Your task to perform on an android device: turn off improve location accuracy Image 0: 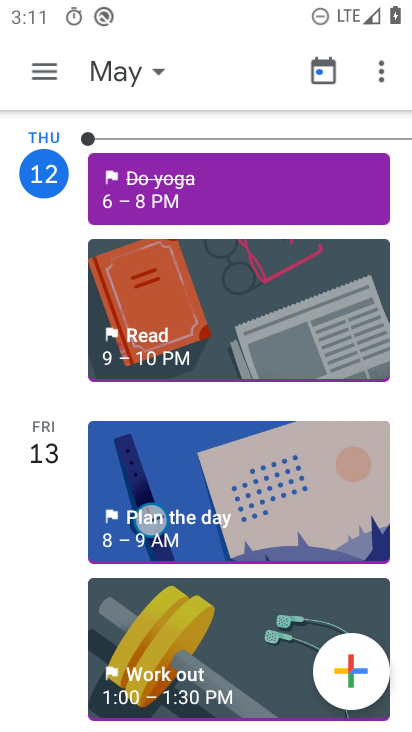
Step 0: press home button
Your task to perform on an android device: turn off improve location accuracy Image 1: 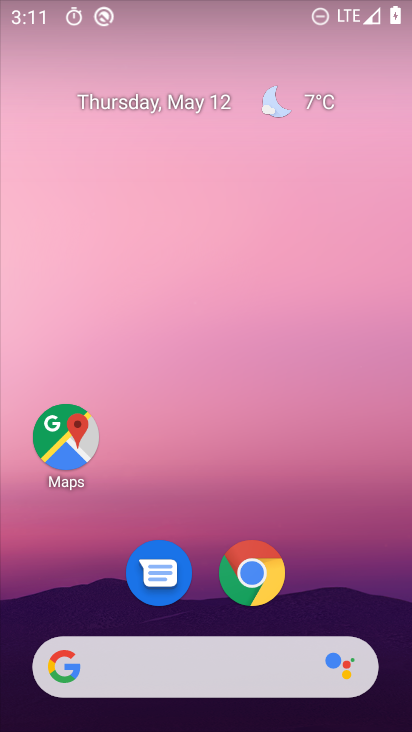
Step 1: drag from (309, 568) to (230, 206)
Your task to perform on an android device: turn off improve location accuracy Image 2: 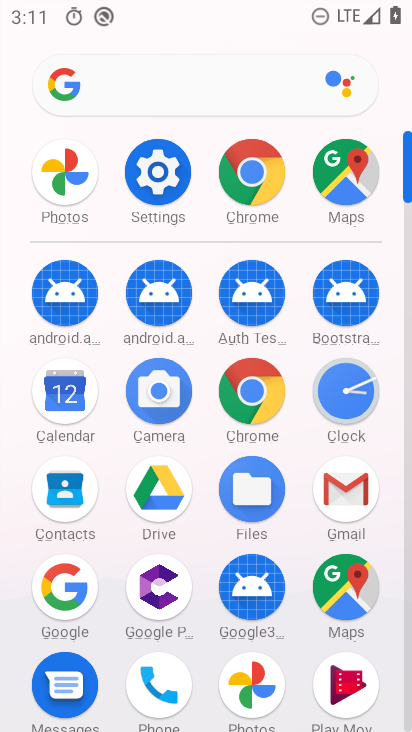
Step 2: click (146, 168)
Your task to perform on an android device: turn off improve location accuracy Image 3: 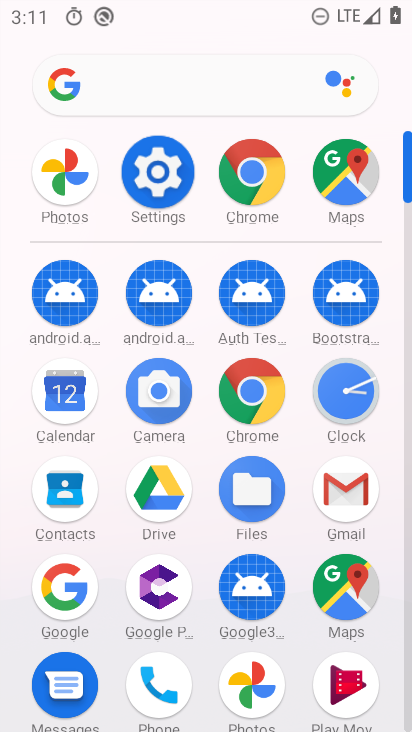
Step 3: click (147, 169)
Your task to perform on an android device: turn off improve location accuracy Image 4: 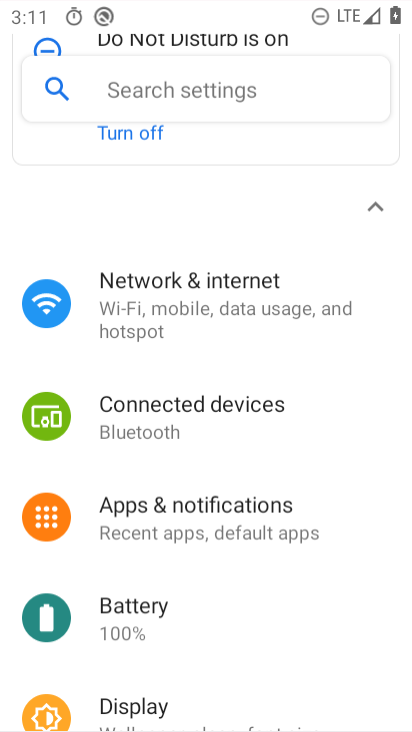
Step 4: click (141, 164)
Your task to perform on an android device: turn off improve location accuracy Image 5: 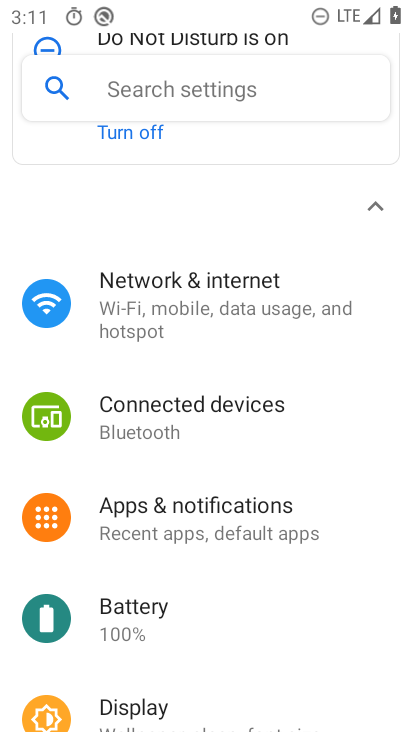
Step 5: drag from (219, 577) to (199, 313)
Your task to perform on an android device: turn off improve location accuracy Image 6: 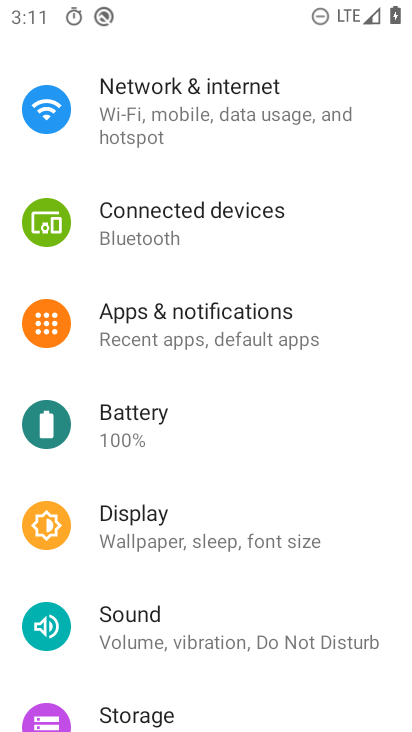
Step 6: drag from (259, 414) to (266, 213)
Your task to perform on an android device: turn off improve location accuracy Image 7: 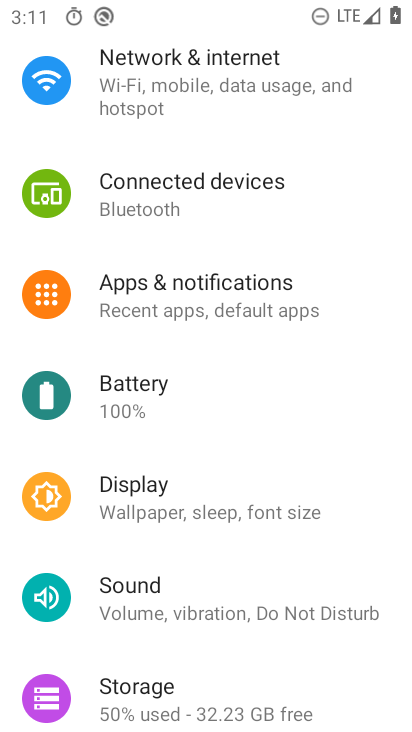
Step 7: drag from (221, 567) to (148, 204)
Your task to perform on an android device: turn off improve location accuracy Image 8: 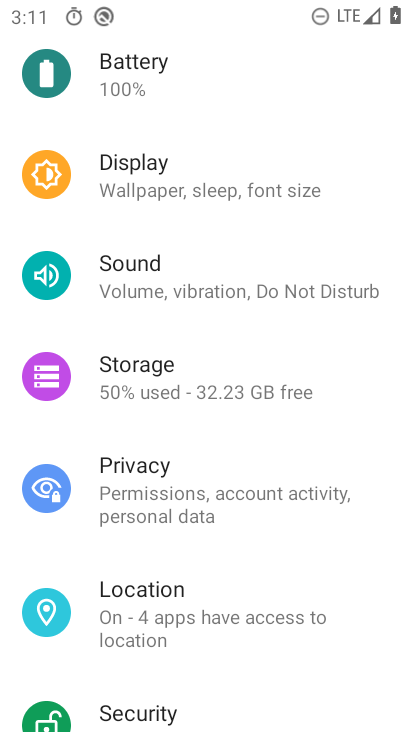
Step 8: drag from (259, 507) to (161, 127)
Your task to perform on an android device: turn off improve location accuracy Image 9: 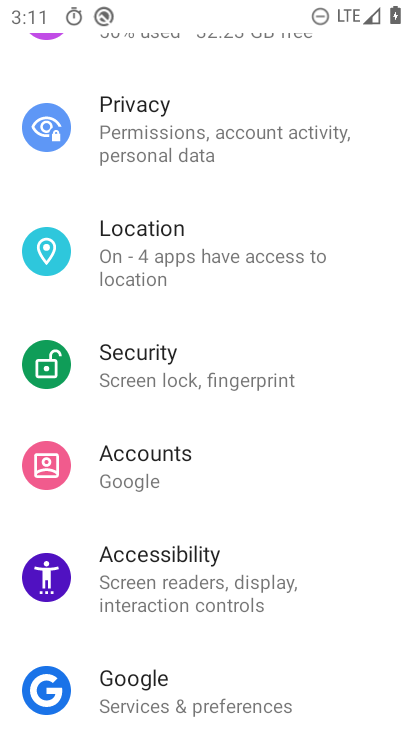
Step 9: drag from (254, 455) to (248, 187)
Your task to perform on an android device: turn off improve location accuracy Image 10: 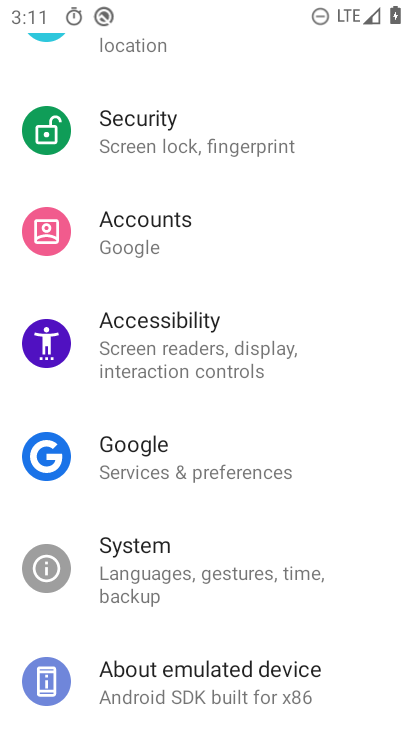
Step 10: drag from (252, 422) to (244, 501)
Your task to perform on an android device: turn off improve location accuracy Image 11: 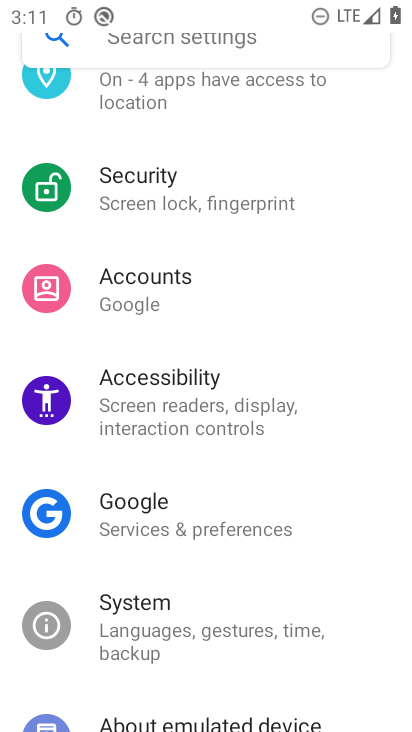
Step 11: drag from (174, 278) to (203, 493)
Your task to perform on an android device: turn off improve location accuracy Image 12: 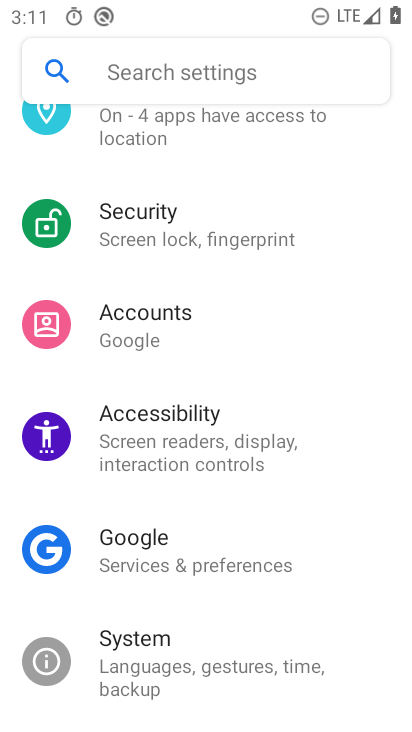
Step 12: drag from (189, 322) to (228, 631)
Your task to perform on an android device: turn off improve location accuracy Image 13: 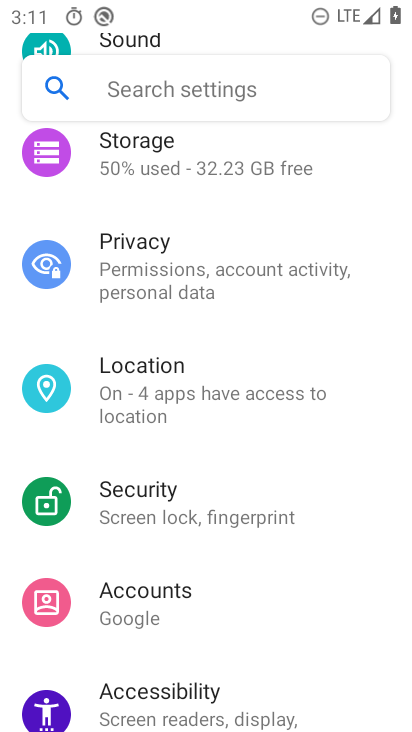
Step 13: drag from (168, 291) to (193, 555)
Your task to perform on an android device: turn off improve location accuracy Image 14: 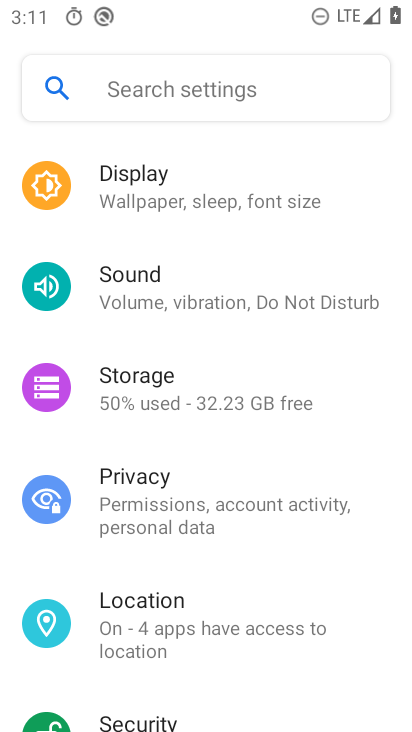
Step 14: click (149, 608)
Your task to perform on an android device: turn off improve location accuracy Image 15: 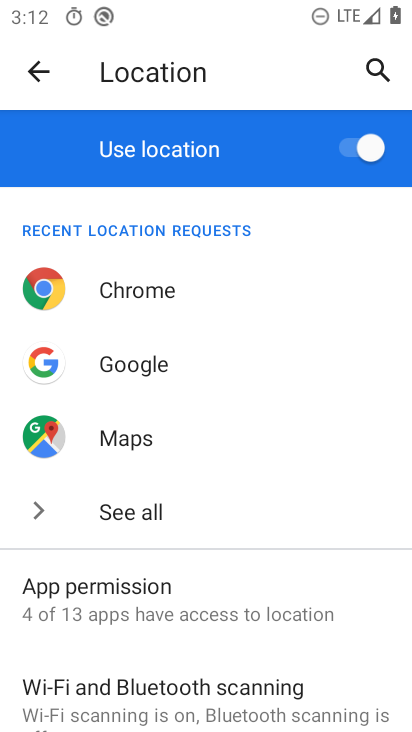
Step 15: click (353, 140)
Your task to perform on an android device: turn off improve location accuracy Image 16: 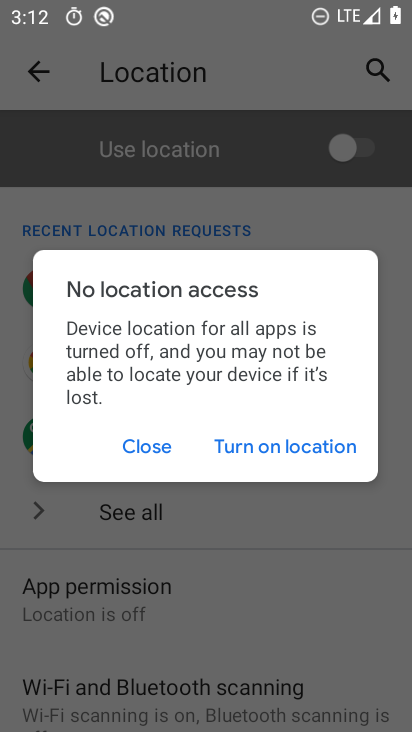
Step 16: task complete